Your task to perform on an android device: Do I have any events today? Image 0: 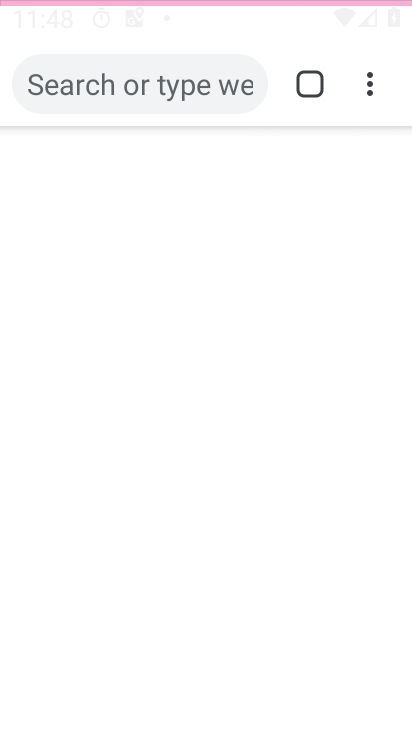
Step 0: click (259, 559)
Your task to perform on an android device: Do I have any events today? Image 1: 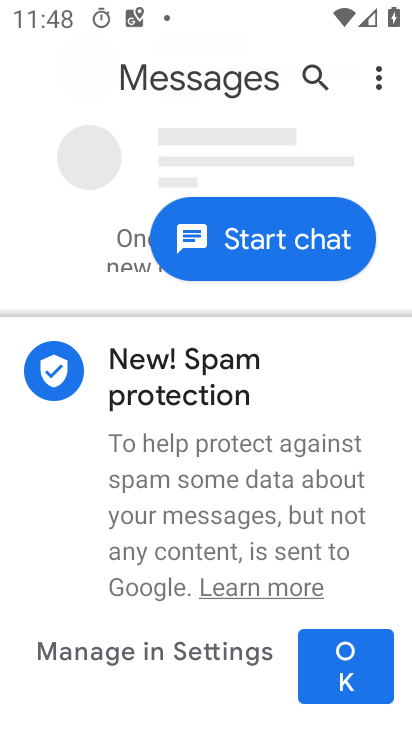
Step 1: press back button
Your task to perform on an android device: Do I have any events today? Image 2: 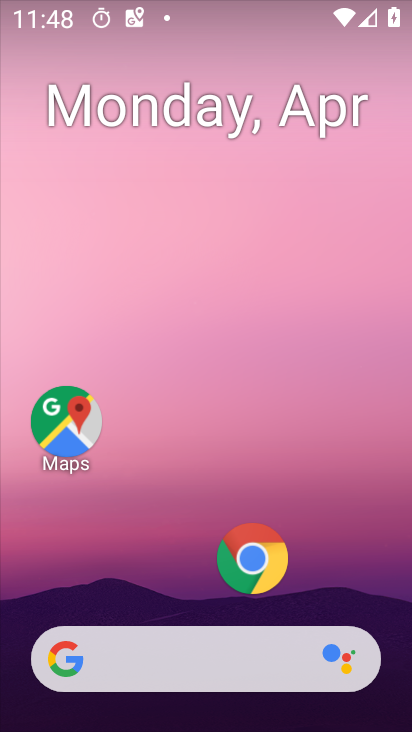
Step 2: drag from (159, 620) to (162, 188)
Your task to perform on an android device: Do I have any events today? Image 3: 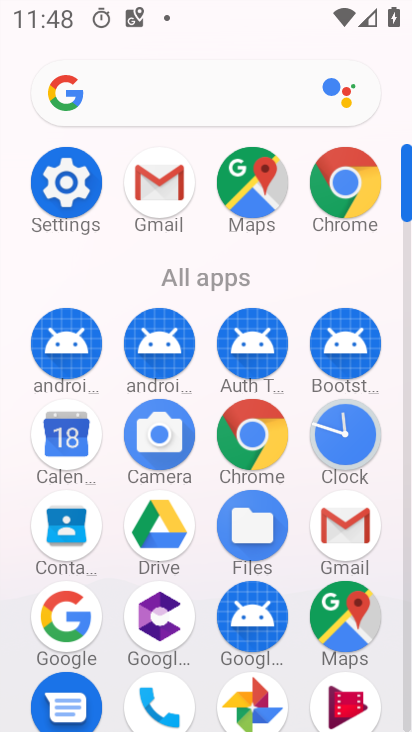
Step 3: click (51, 438)
Your task to perform on an android device: Do I have any events today? Image 4: 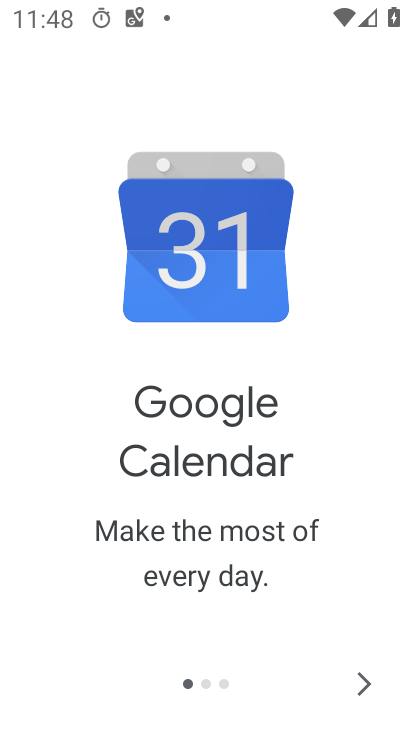
Step 4: click (357, 682)
Your task to perform on an android device: Do I have any events today? Image 5: 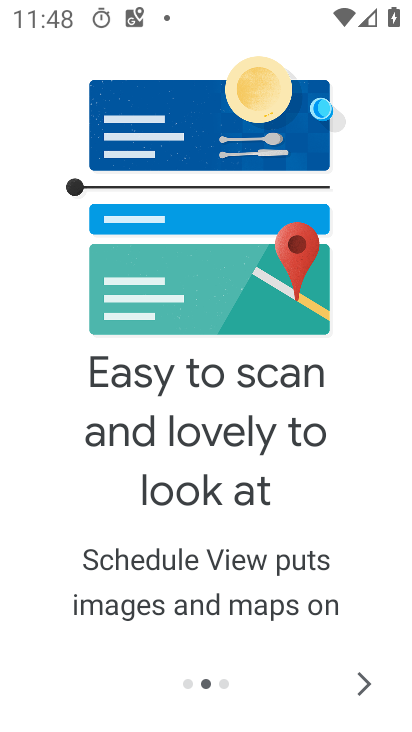
Step 5: click (357, 674)
Your task to perform on an android device: Do I have any events today? Image 6: 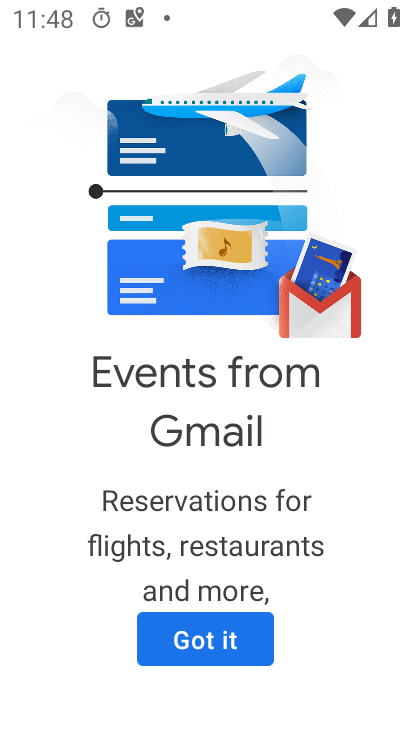
Step 6: click (252, 629)
Your task to perform on an android device: Do I have any events today? Image 7: 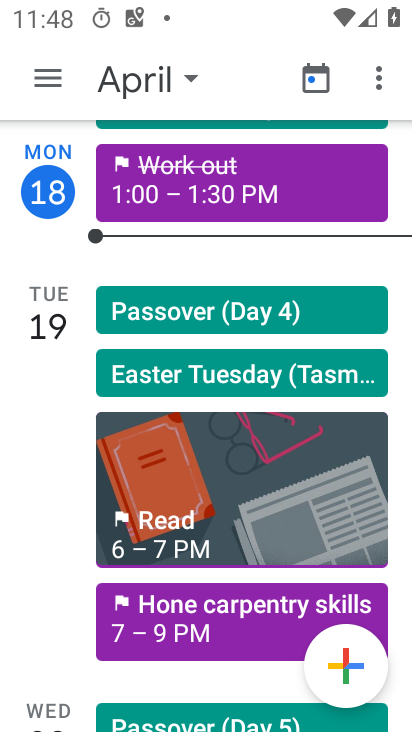
Step 7: click (152, 93)
Your task to perform on an android device: Do I have any events today? Image 8: 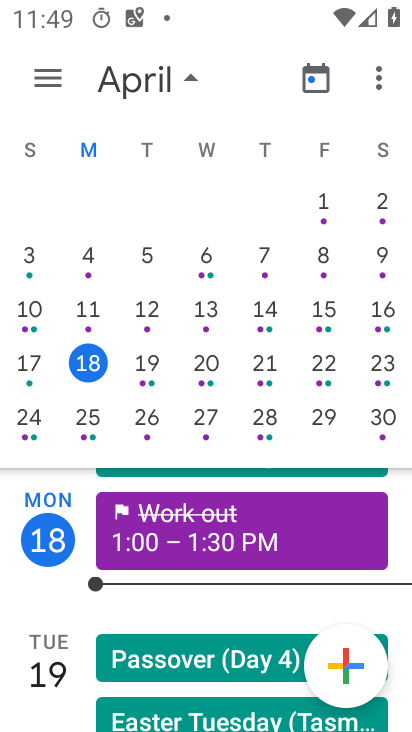
Step 8: click (88, 363)
Your task to perform on an android device: Do I have any events today? Image 9: 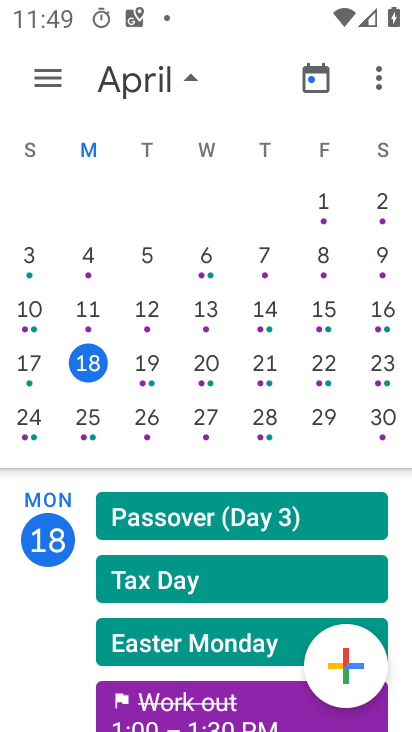
Step 9: task complete